Your task to perform on an android device: turn pop-ups on in chrome Image 0: 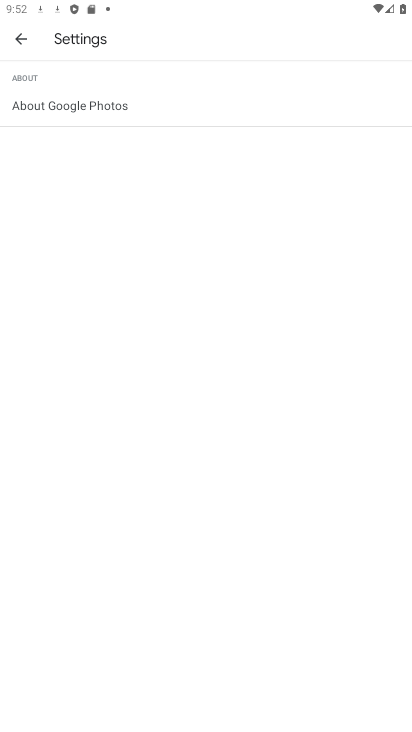
Step 0: press home button
Your task to perform on an android device: turn pop-ups on in chrome Image 1: 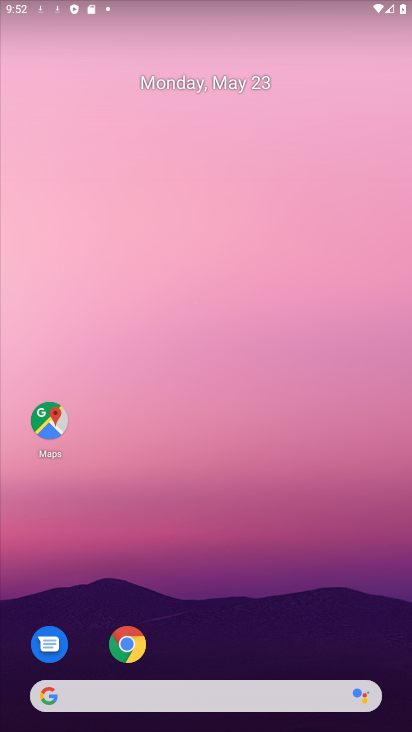
Step 1: drag from (299, 722) to (183, 187)
Your task to perform on an android device: turn pop-ups on in chrome Image 2: 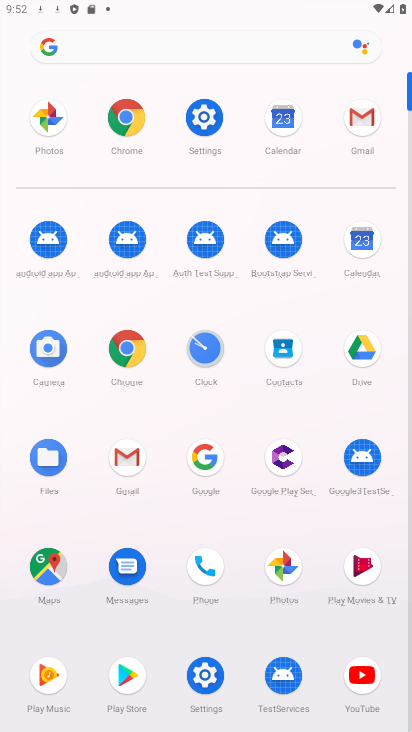
Step 2: click (123, 351)
Your task to perform on an android device: turn pop-ups on in chrome Image 3: 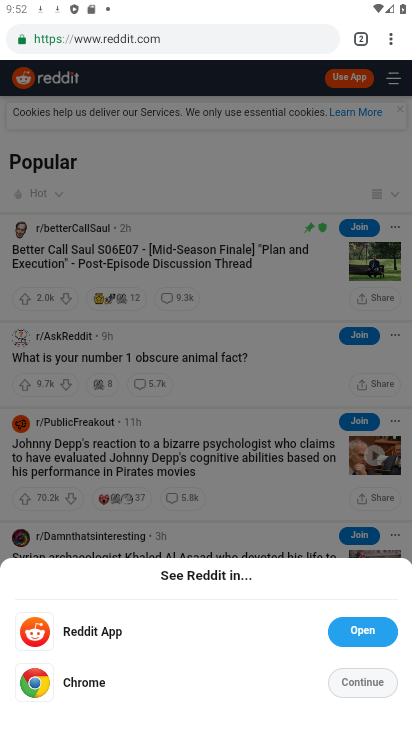
Step 3: click (387, 29)
Your task to perform on an android device: turn pop-ups on in chrome Image 4: 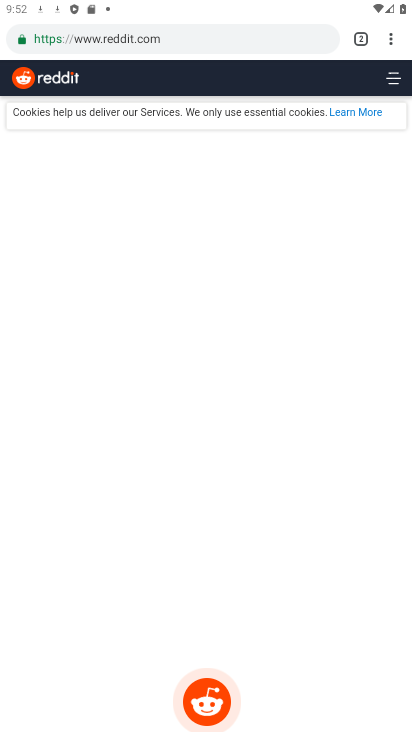
Step 4: click (384, 50)
Your task to perform on an android device: turn pop-ups on in chrome Image 5: 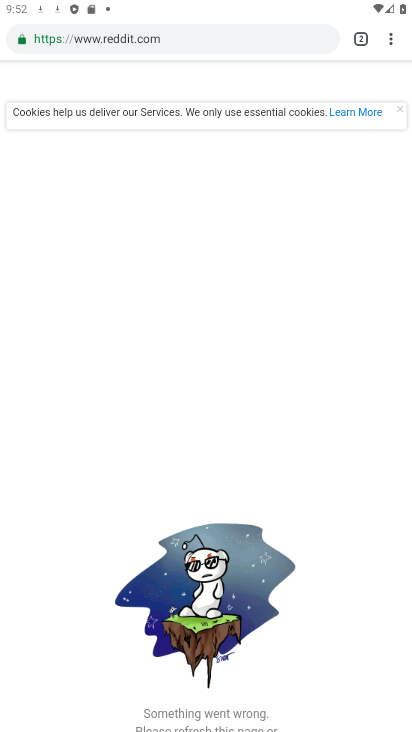
Step 5: click (388, 44)
Your task to perform on an android device: turn pop-ups on in chrome Image 6: 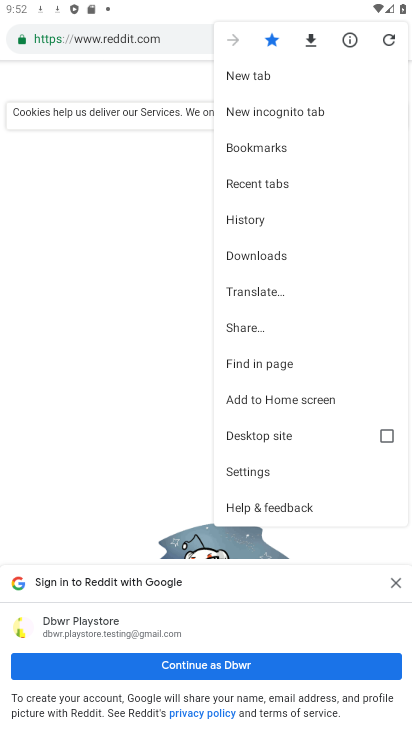
Step 6: click (243, 477)
Your task to perform on an android device: turn pop-ups on in chrome Image 7: 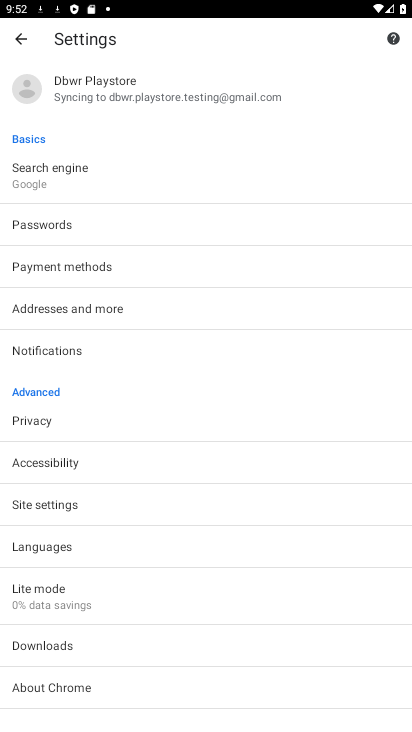
Step 7: drag from (161, 634) to (143, 492)
Your task to perform on an android device: turn pop-ups on in chrome Image 8: 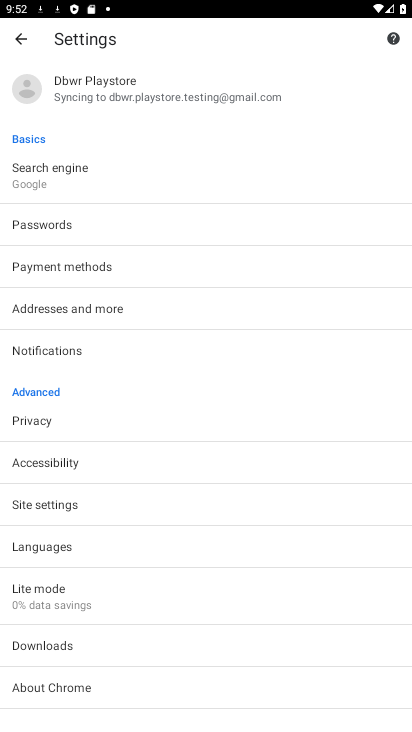
Step 8: click (76, 503)
Your task to perform on an android device: turn pop-ups on in chrome Image 9: 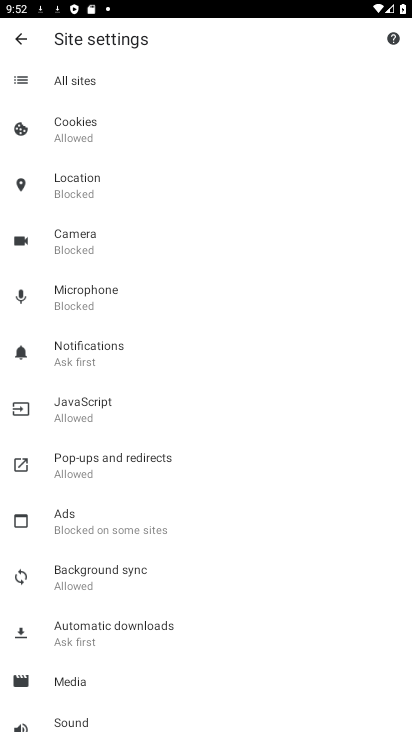
Step 9: click (151, 463)
Your task to perform on an android device: turn pop-ups on in chrome Image 10: 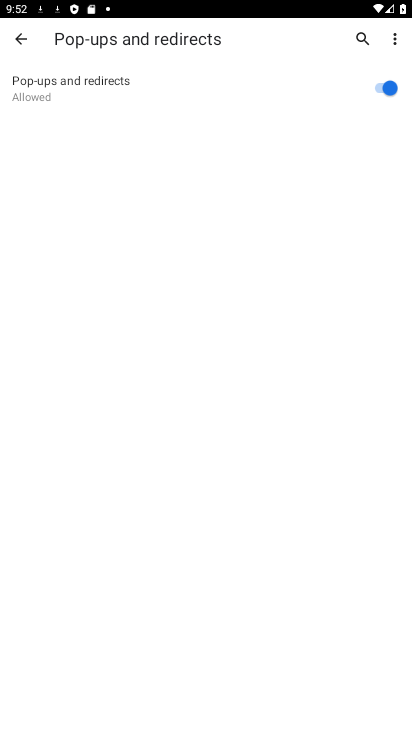
Step 10: click (393, 86)
Your task to perform on an android device: turn pop-ups on in chrome Image 11: 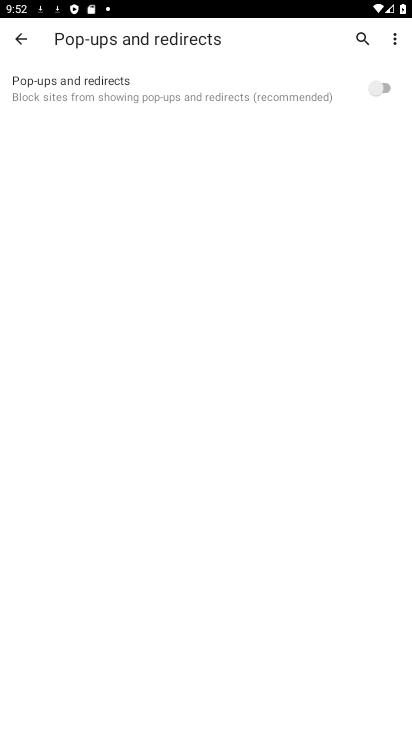
Step 11: click (391, 81)
Your task to perform on an android device: turn pop-ups on in chrome Image 12: 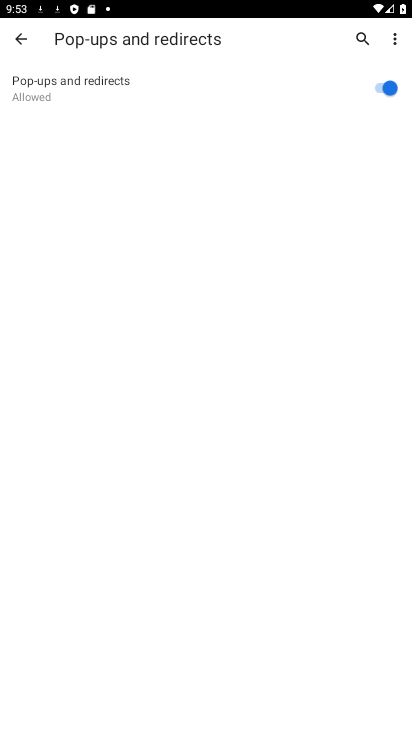
Step 12: task complete